Your task to perform on an android device: find snoozed emails in the gmail app Image 0: 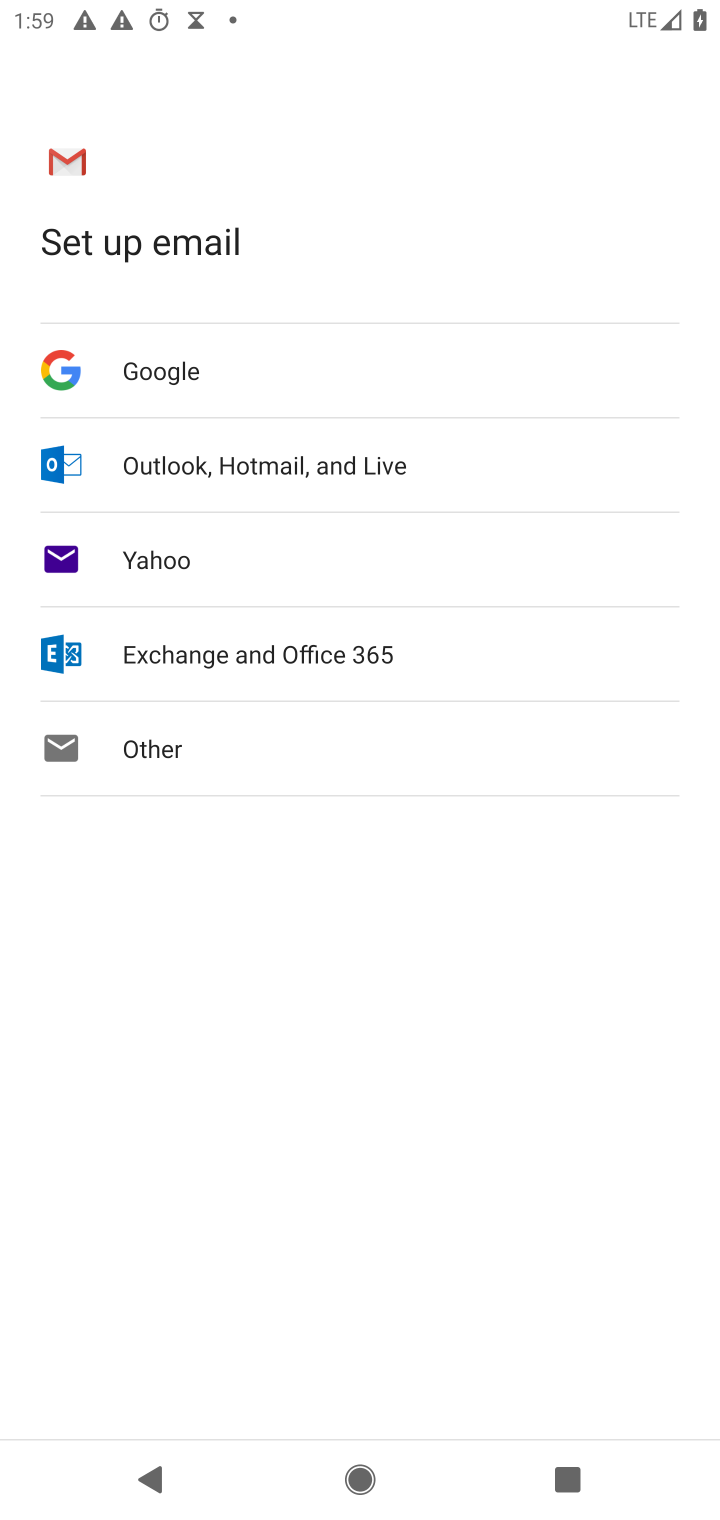
Step 0: press home button
Your task to perform on an android device: find snoozed emails in the gmail app Image 1: 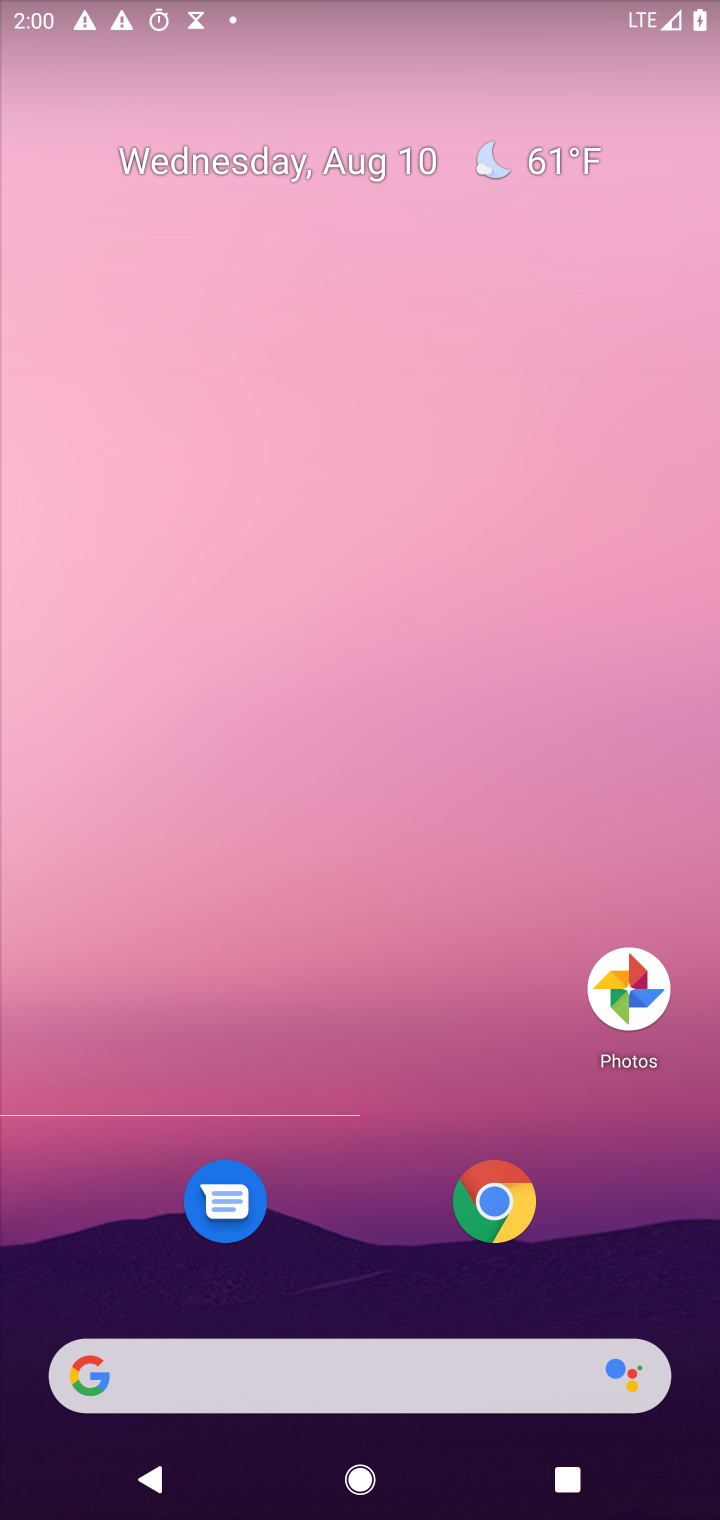
Step 1: drag from (386, 1251) to (353, 369)
Your task to perform on an android device: find snoozed emails in the gmail app Image 2: 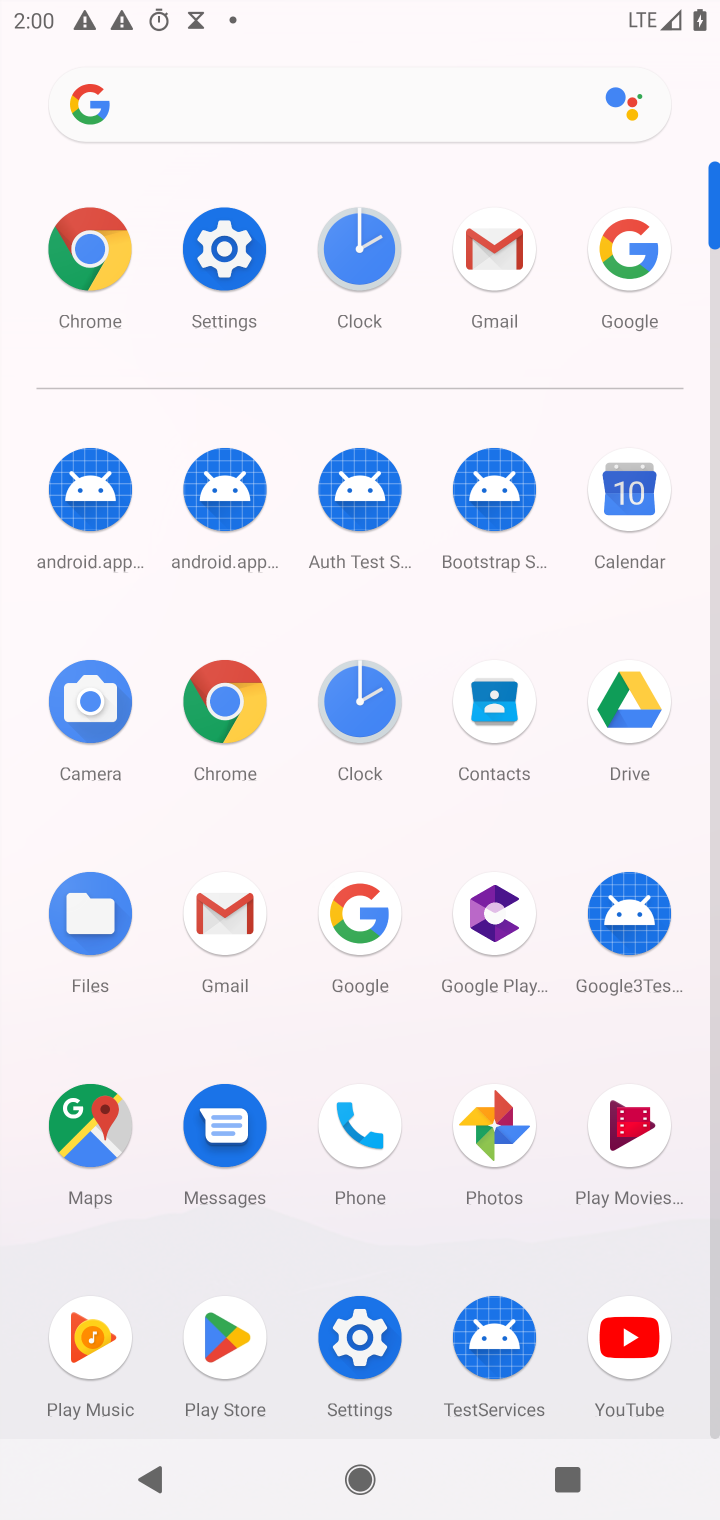
Step 2: click (480, 251)
Your task to perform on an android device: find snoozed emails in the gmail app Image 3: 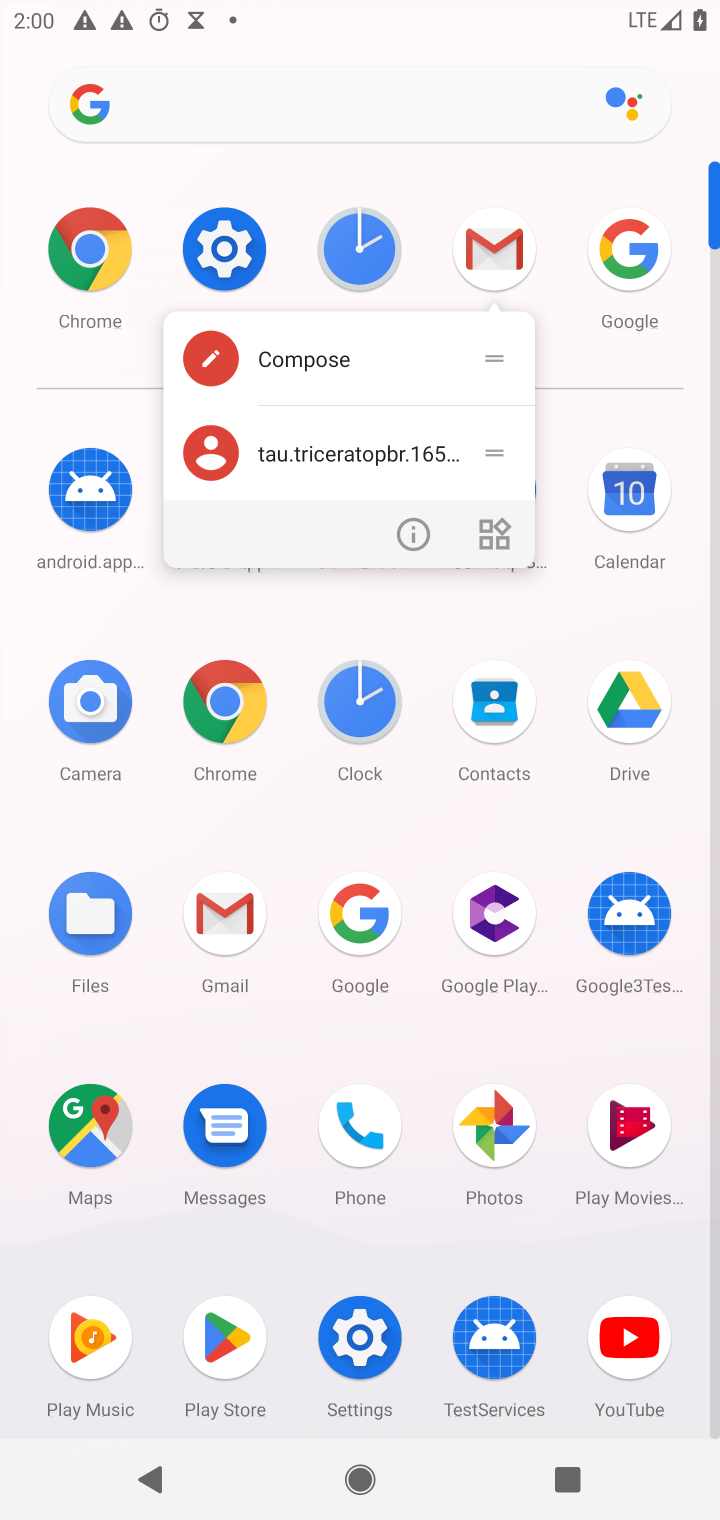
Step 3: click (480, 251)
Your task to perform on an android device: find snoozed emails in the gmail app Image 4: 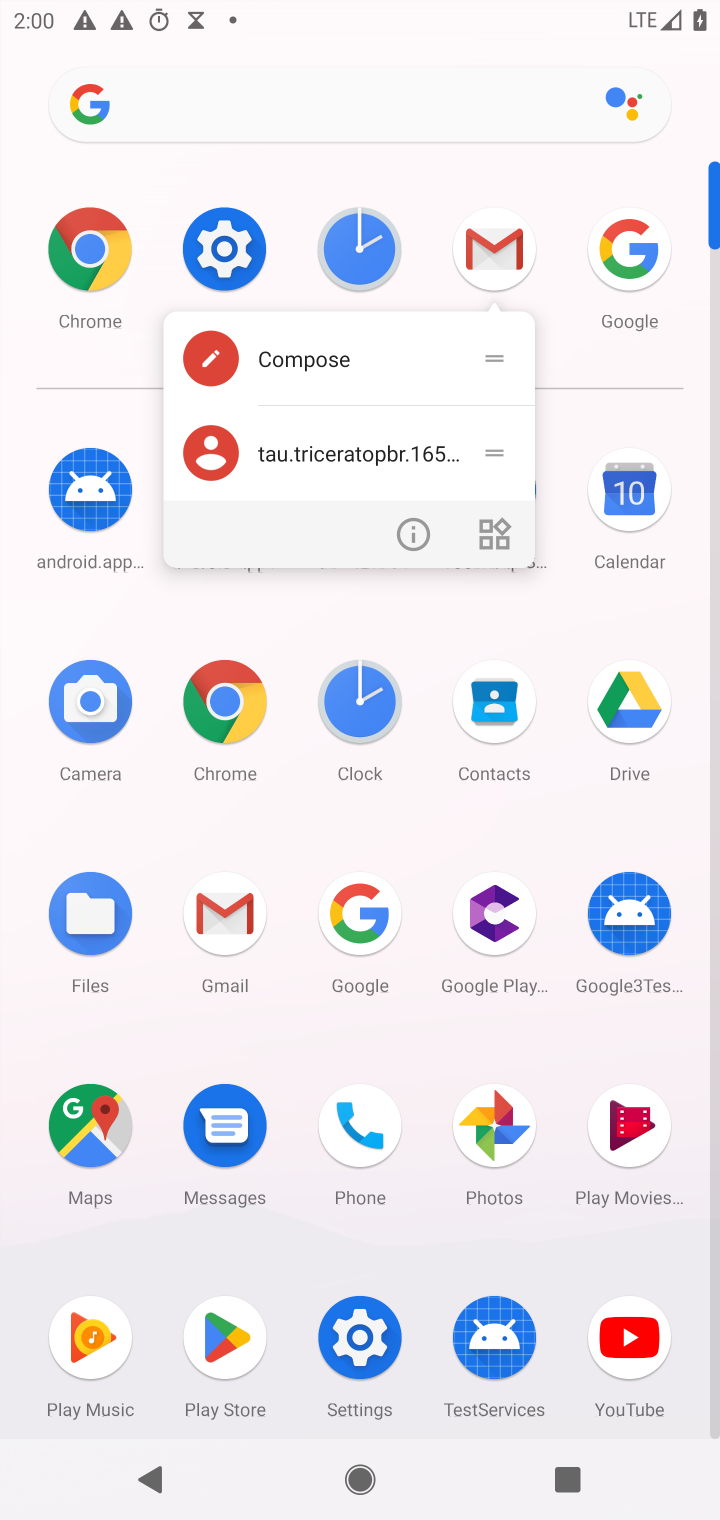
Step 4: click (480, 251)
Your task to perform on an android device: find snoozed emails in the gmail app Image 5: 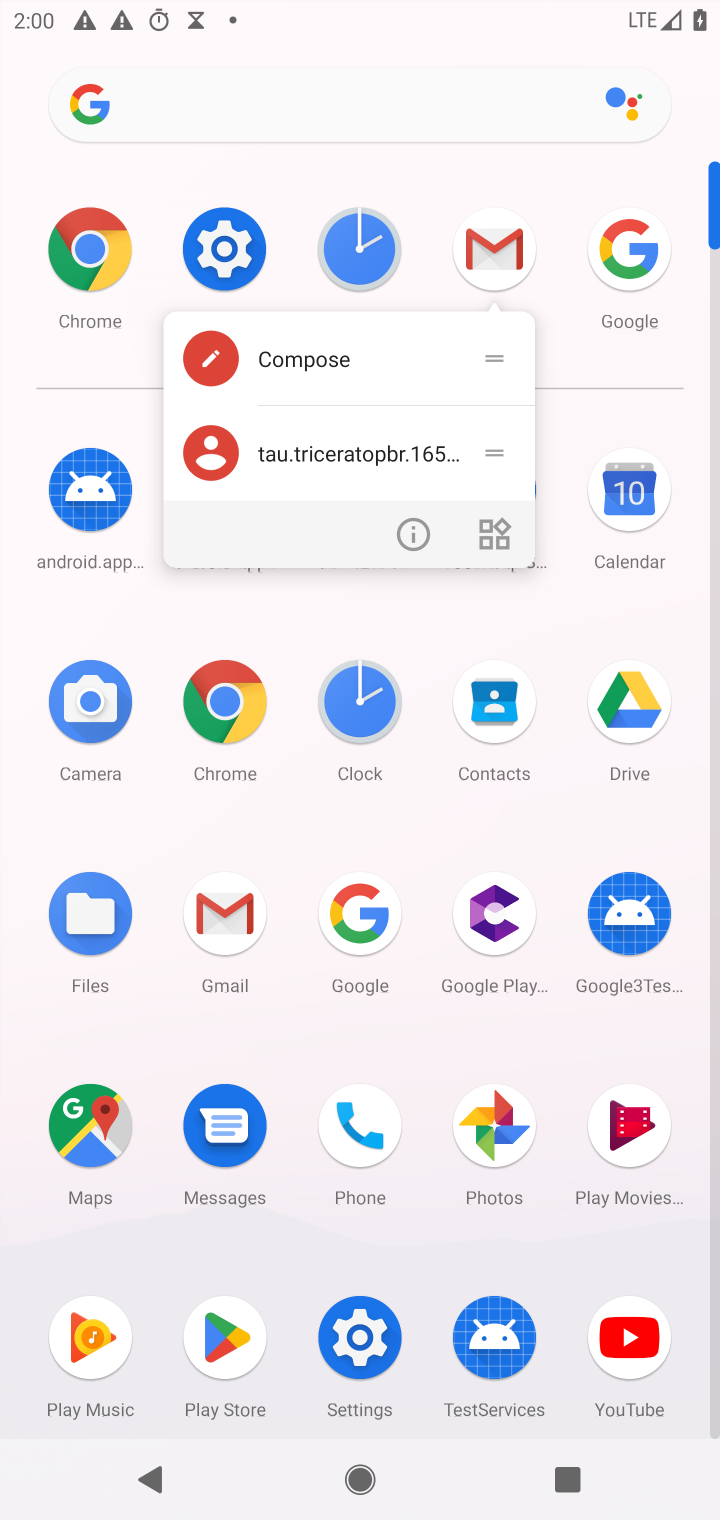
Step 5: click (503, 243)
Your task to perform on an android device: find snoozed emails in the gmail app Image 6: 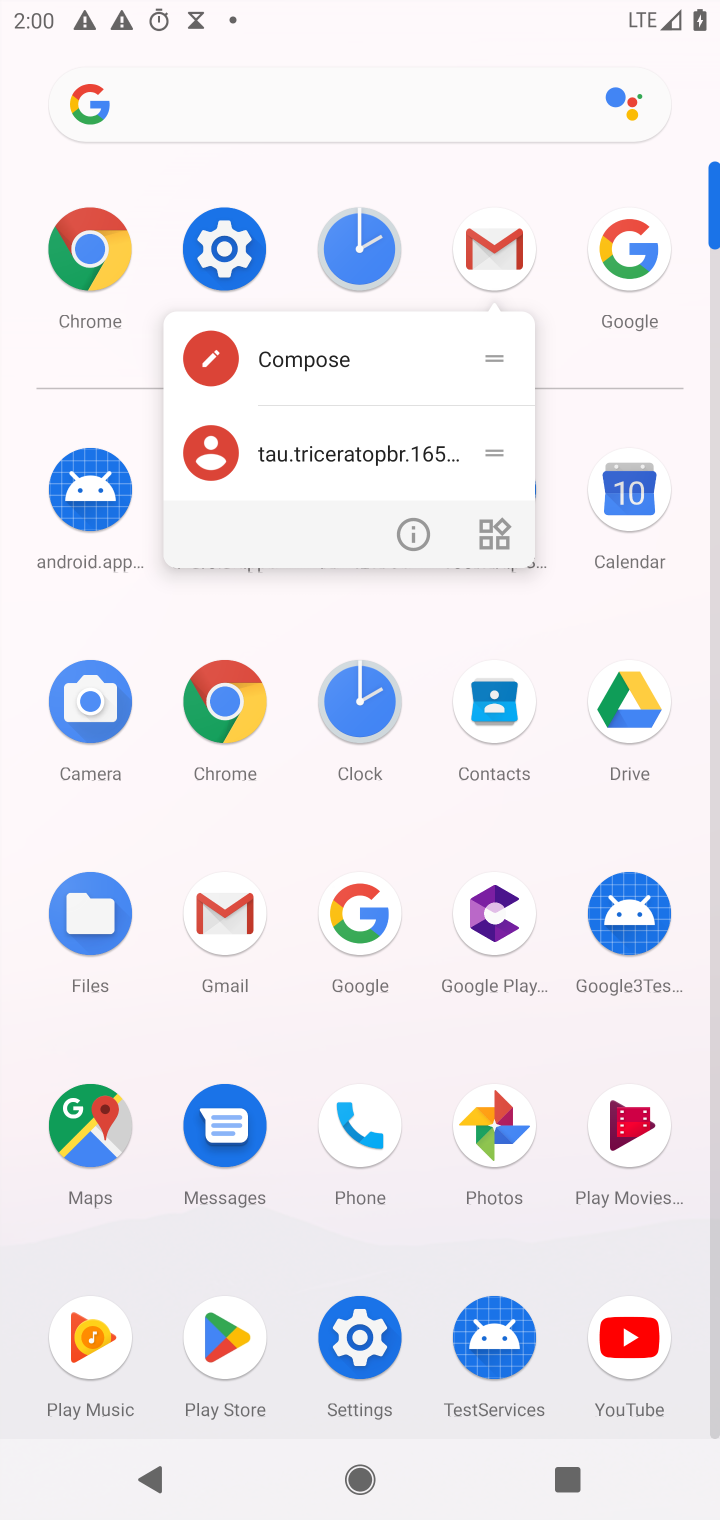
Step 6: click (503, 243)
Your task to perform on an android device: find snoozed emails in the gmail app Image 7: 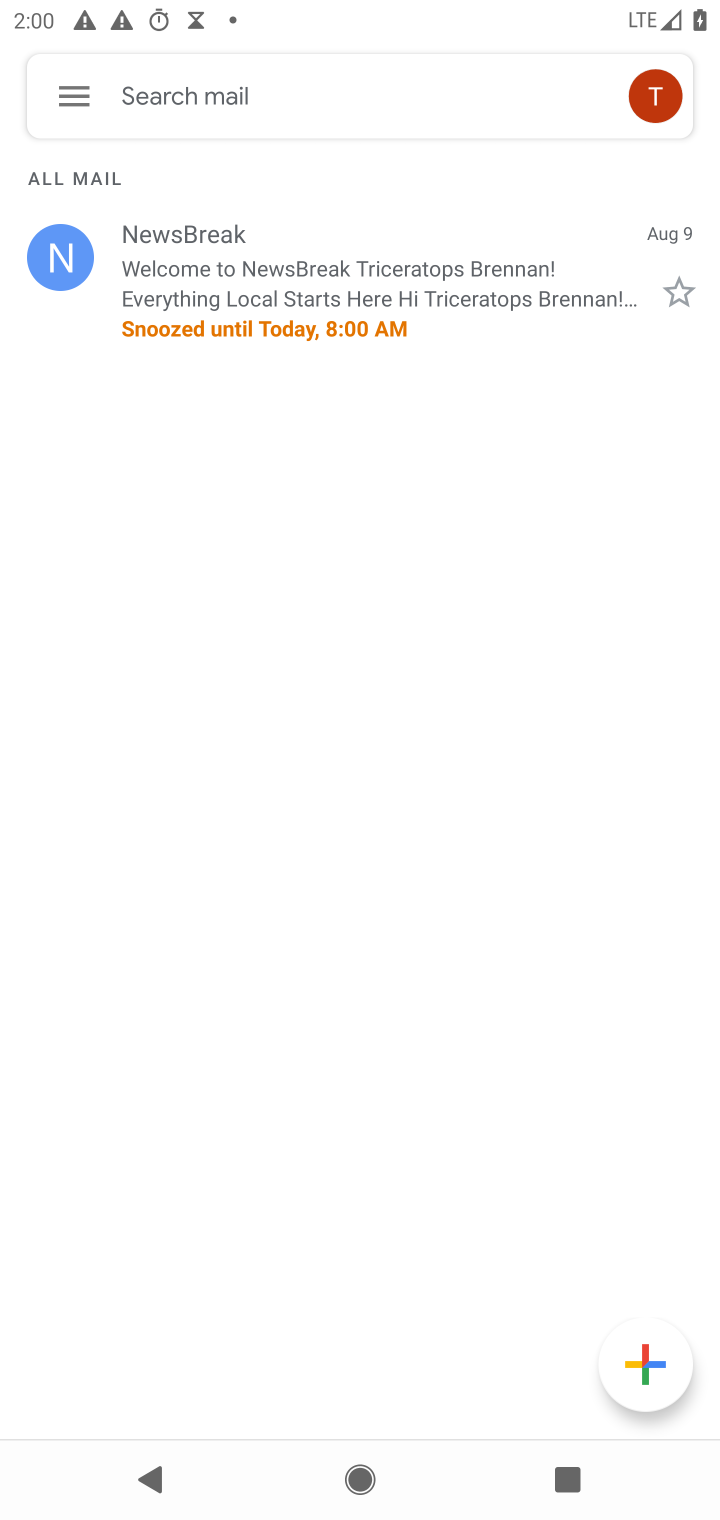
Step 7: click (65, 110)
Your task to perform on an android device: find snoozed emails in the gmail app Image 8: 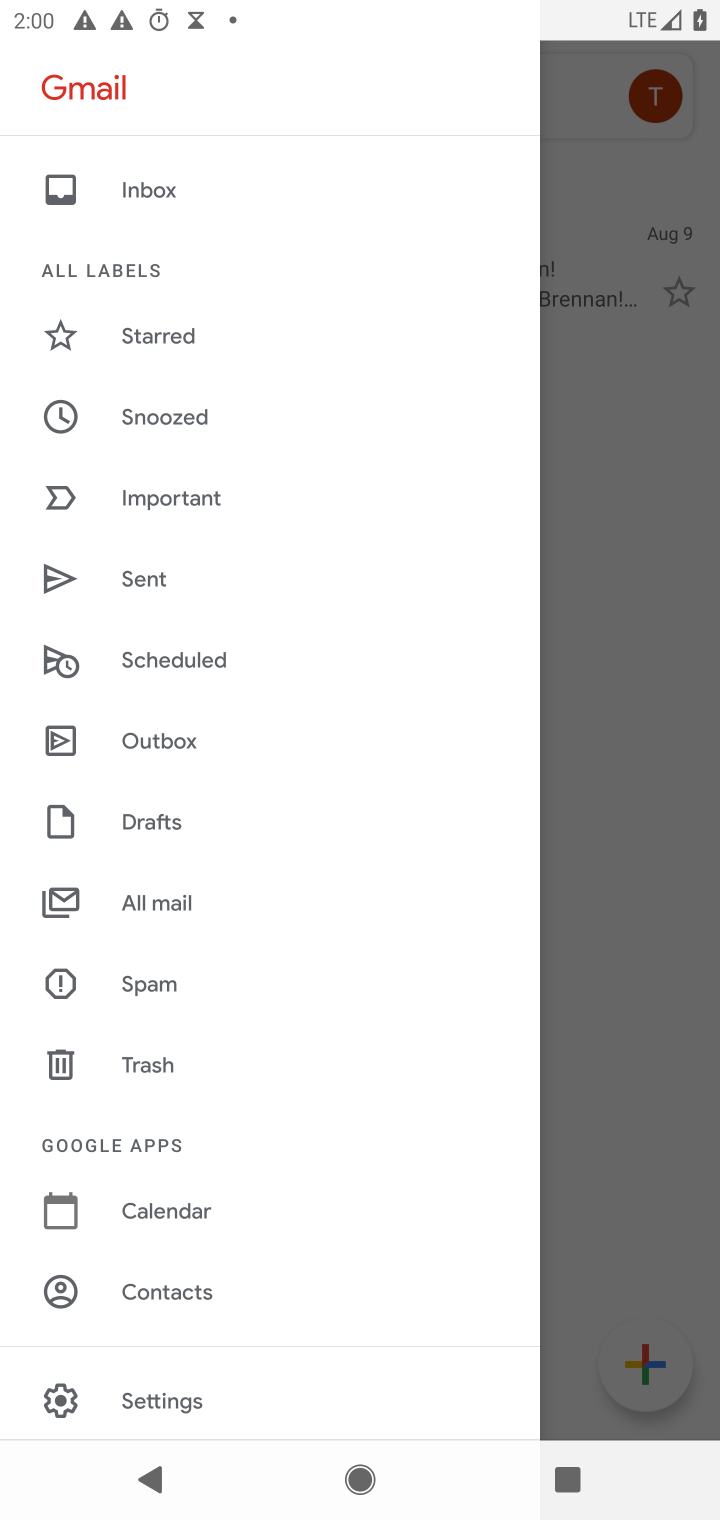
Step 8: click (156, 425)
Your task to perform on an android device: find snoozed emails in the gmail app Image 9: 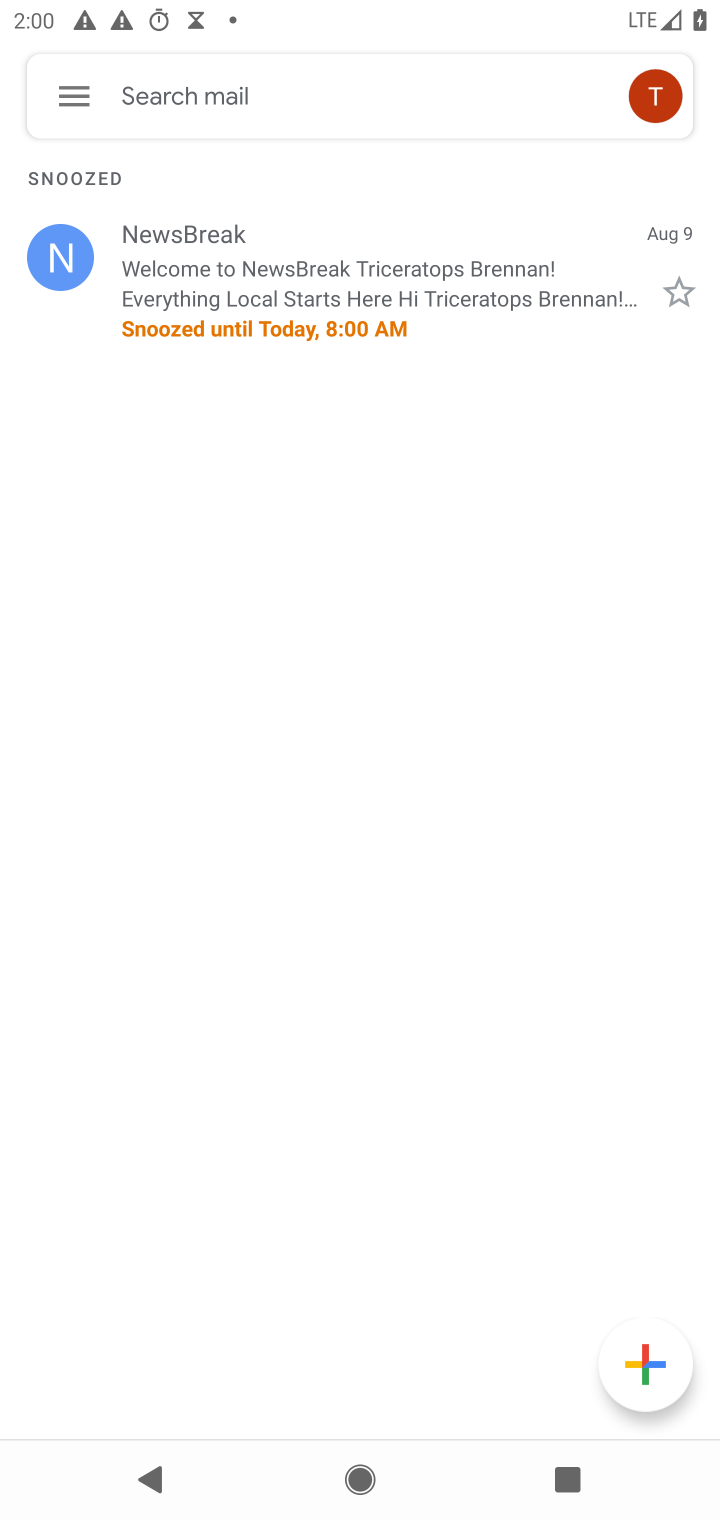
Step 9: click (271, 295)
Your task to perform on an android device: find snoozed emails in the gmail app Image 10: 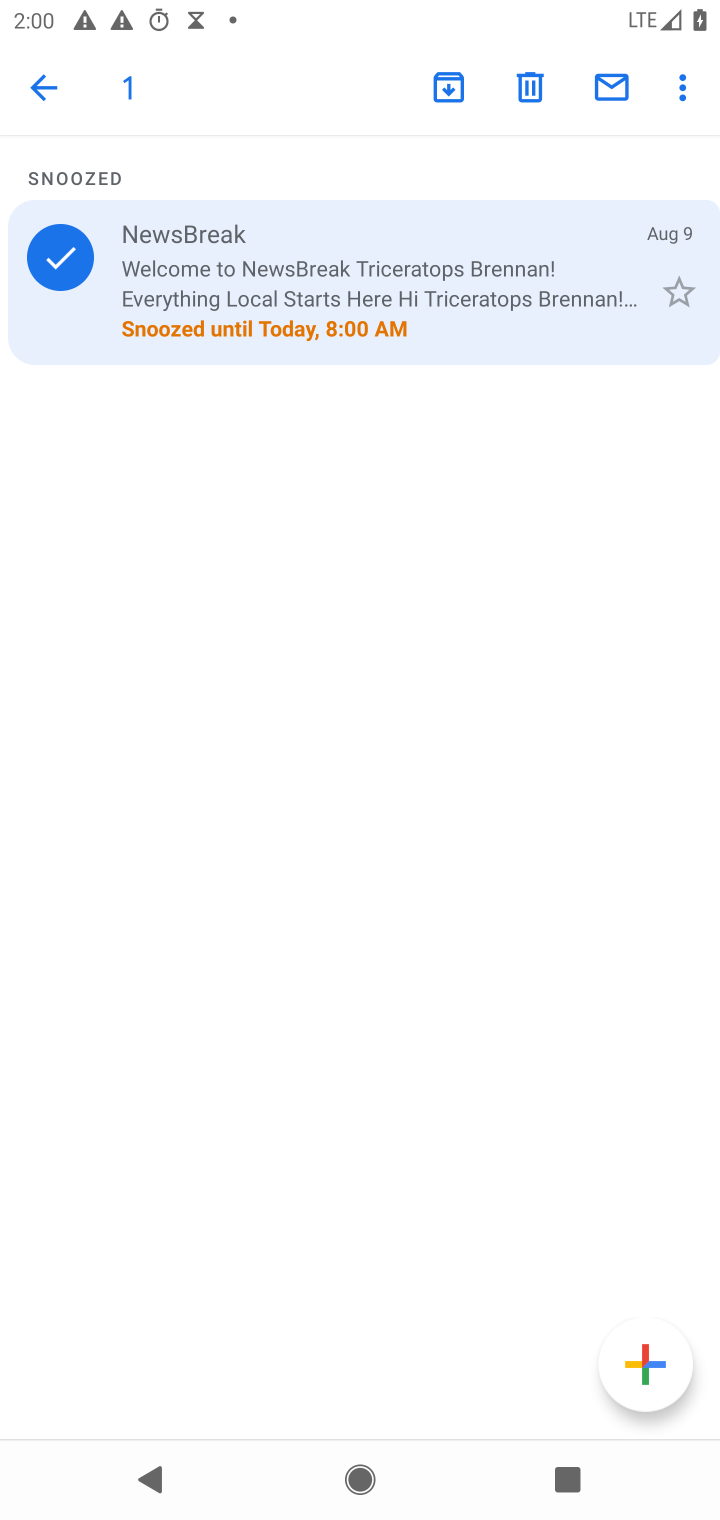
Step 10: click (415, 306)
Your task to perform on an android device: find snoozed emails in the gmail app Image 11: 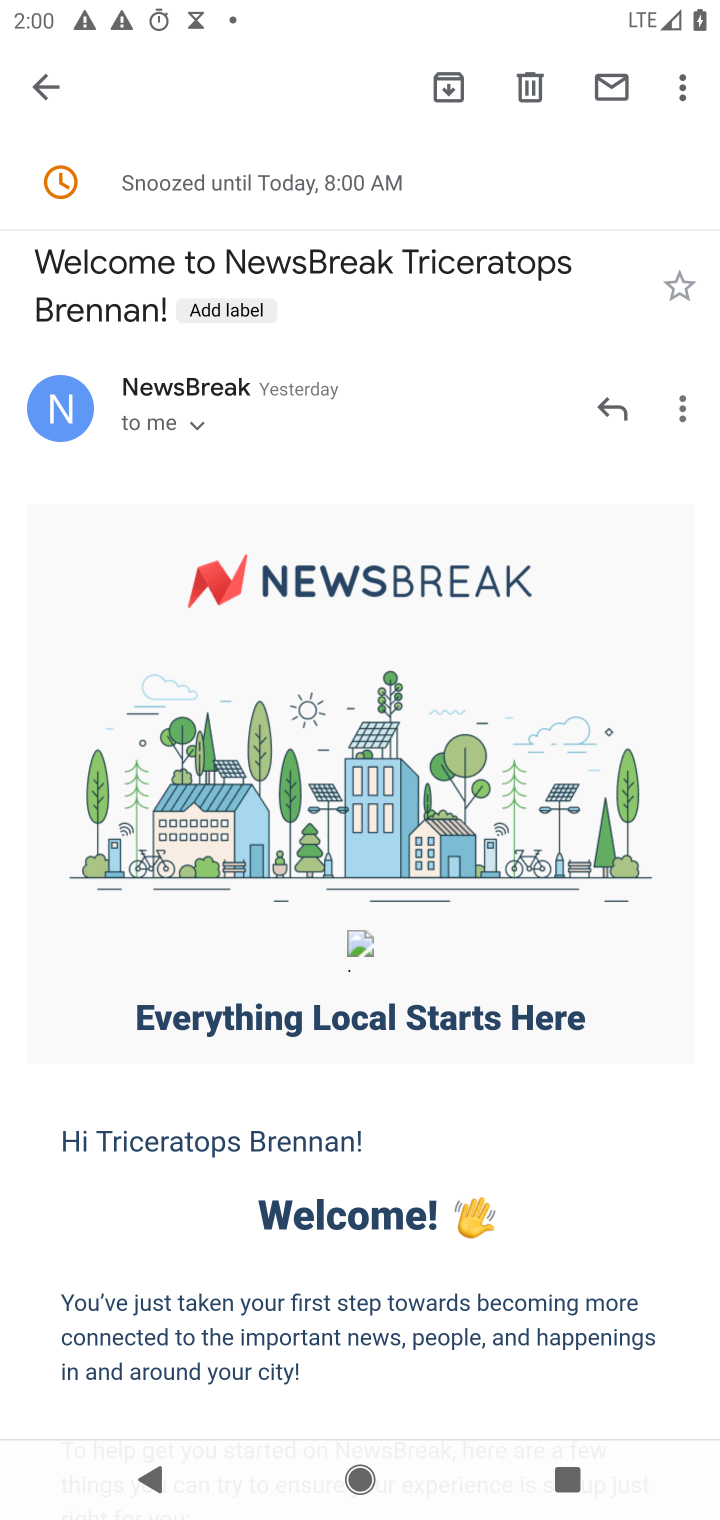
Step 11: task complete